Your task to perform on an android device: Open Reddit.com Image 0: 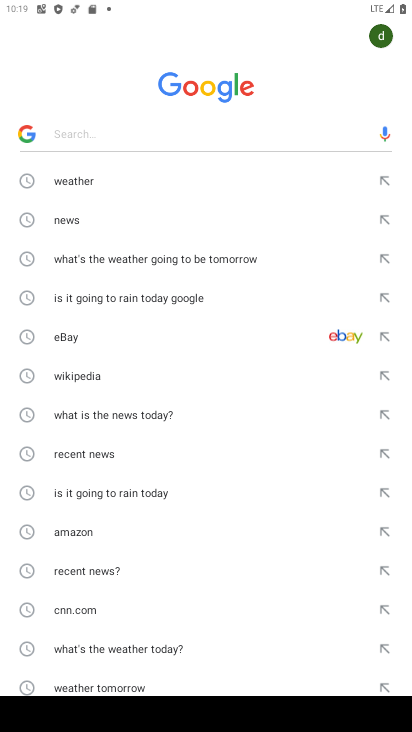
Step 0: press back button
Your task to perform on an android device: Open Reddit.com Image 1: 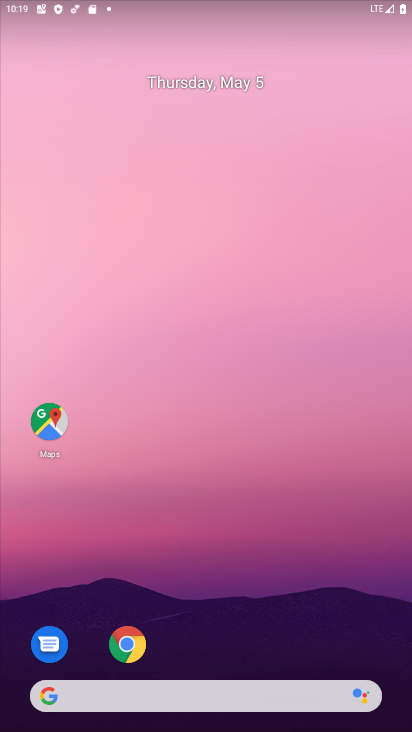
Step 1: click (122, 637)
Your task to perform on an android device: Open Reddit.com Image 2: 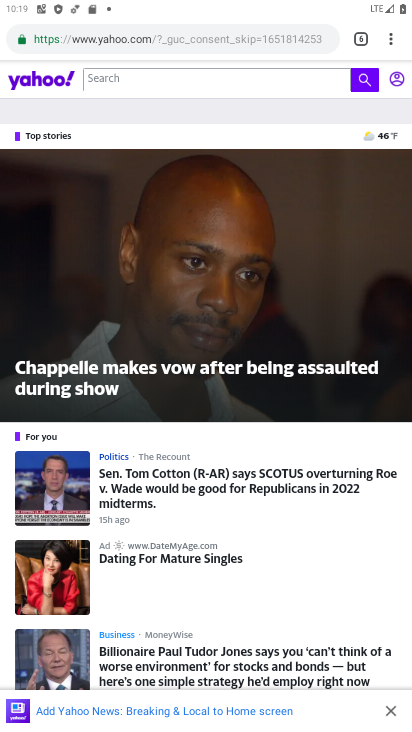
Step 2: click (264, 37)
Your task to perform on an android device: Open Reddit.com Image 3: 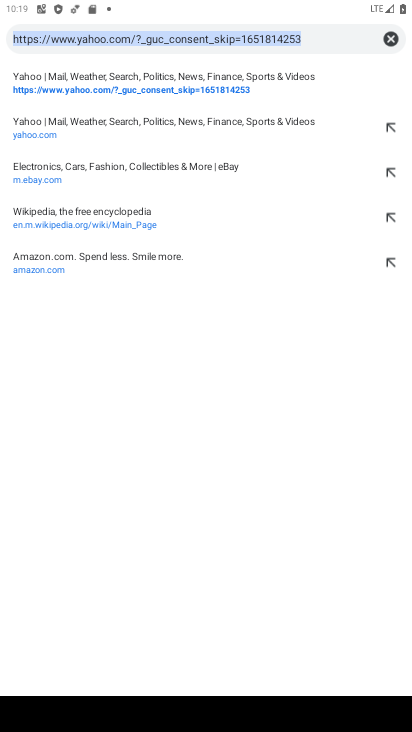
Step 3: click (385, 39)
Your task to perform on an android device: Open Reddit.com Image 4: 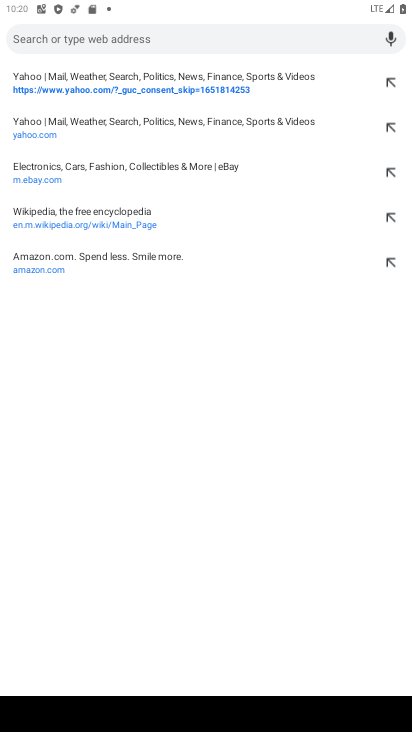
Step 4: type "reddit"
Your task to perform on an android device: Open Reddit.com Image 5: 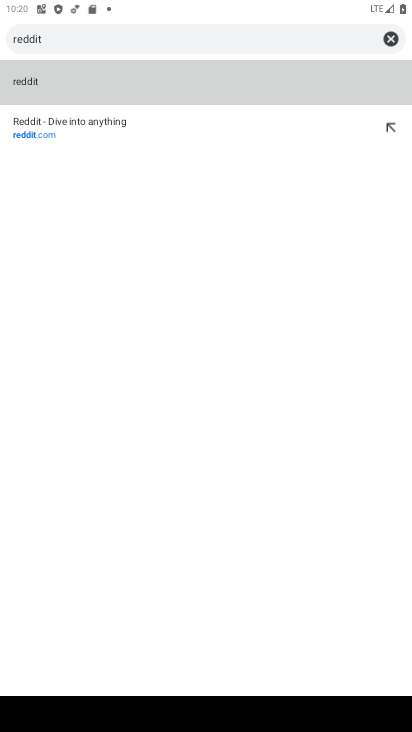
Step 5: click (127, 119)
Your task to perform on an android device: Open Reddit.com Image 6: 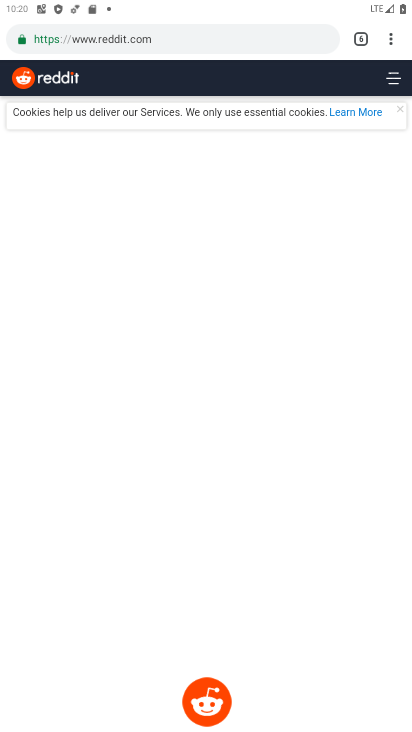
Step 6: task complete